Your task to perform on an android device: Play the new Drake video on YouTube Image 0: 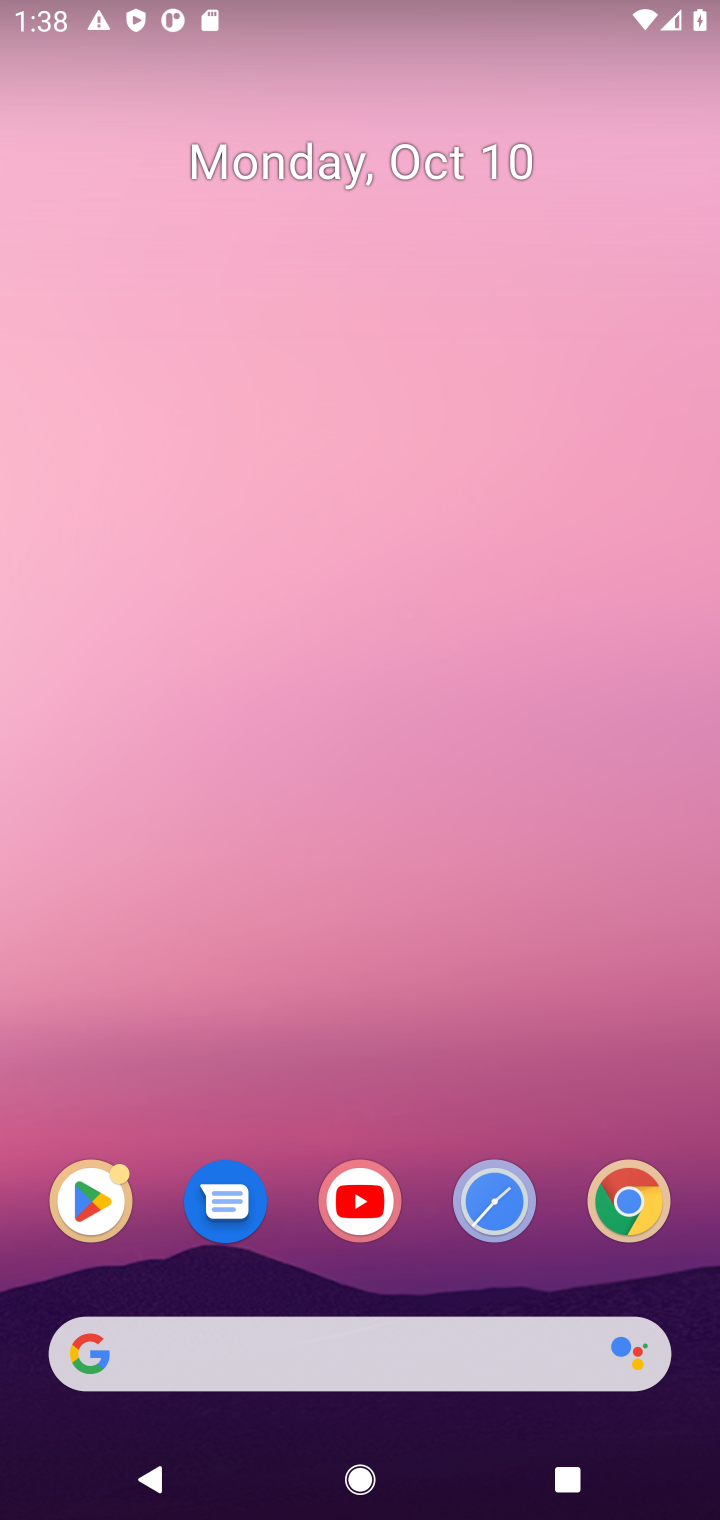
Step 0: click (372, 1188)
Your task to perform on an android device: Play the new Drake video on YouTube Image 1: 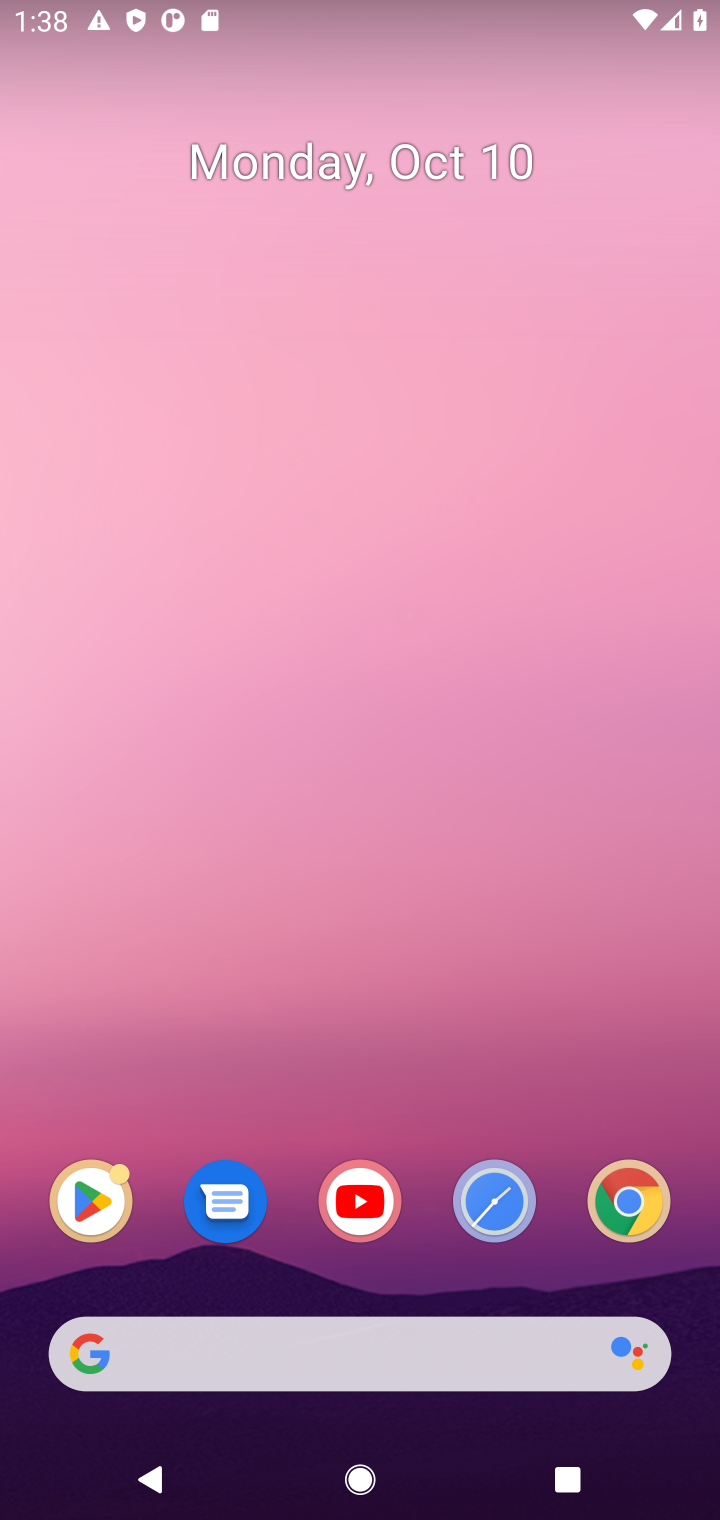
Step 1: click (372, 1204)
Your task to perform on an android device: Play the new Drake video on YouTube Image 2: 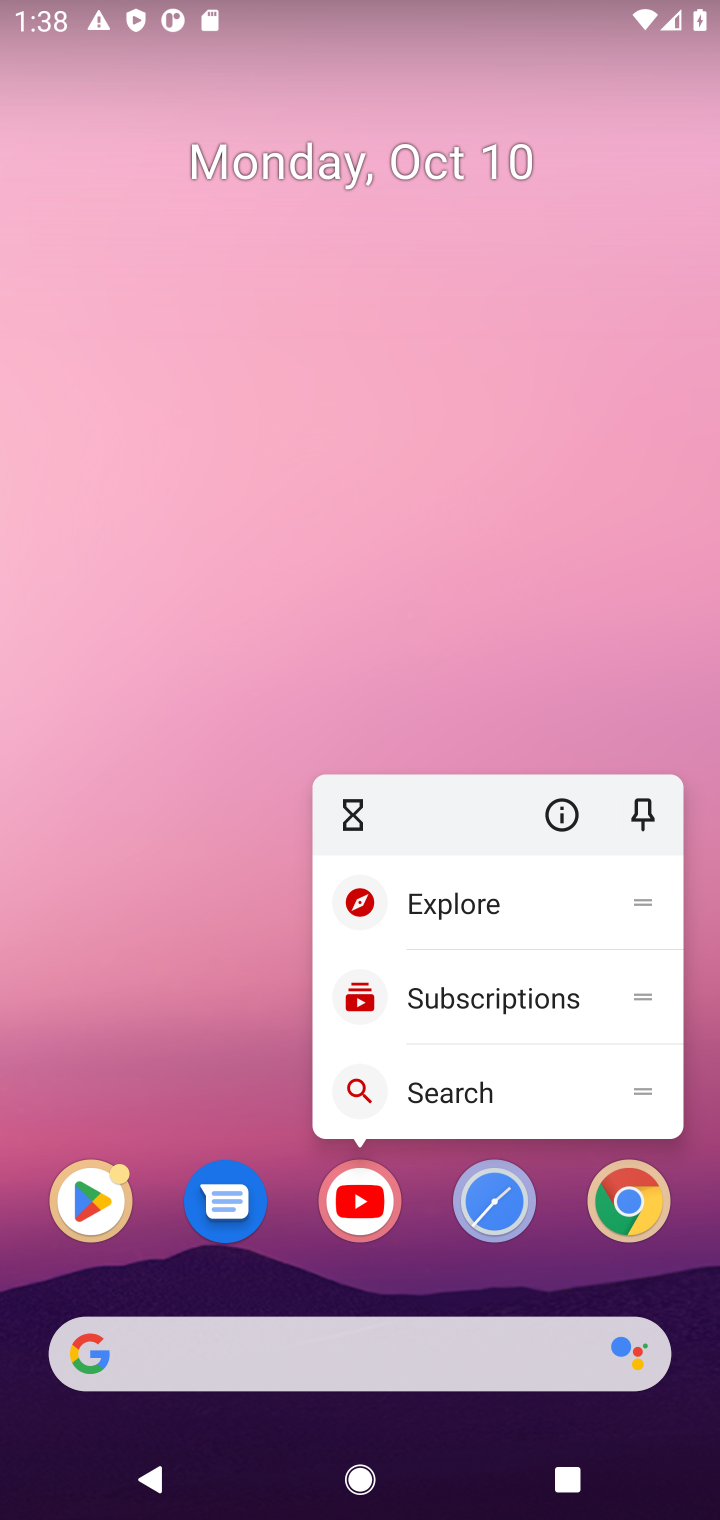
Step 2: click (184, 903)
Your task to perform on an android device: Play the new Drake video on YouTube Image 3: 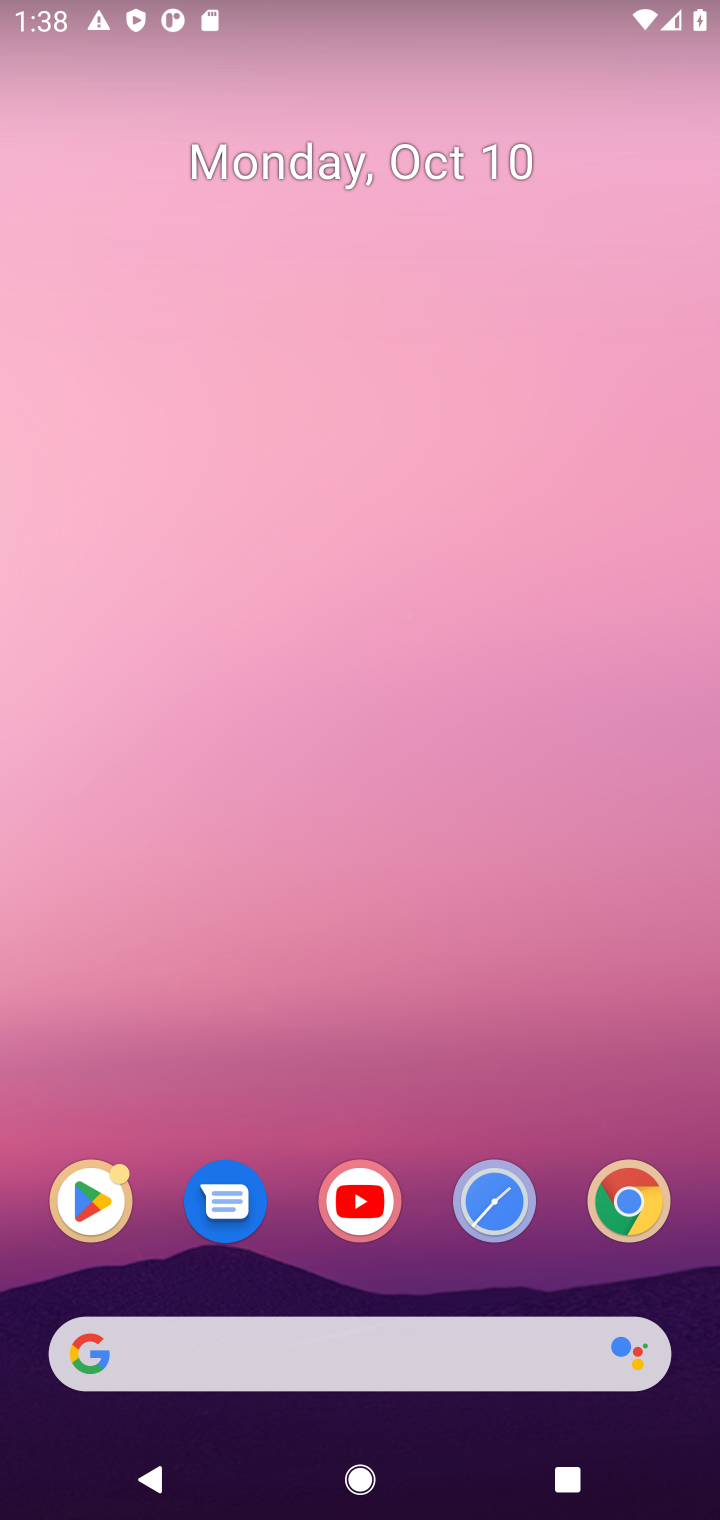
Step 3: drag from (434, 1475) to (364, 178)
Your task to perform on an android device: Play the new Drake video on YouTube Image 4: 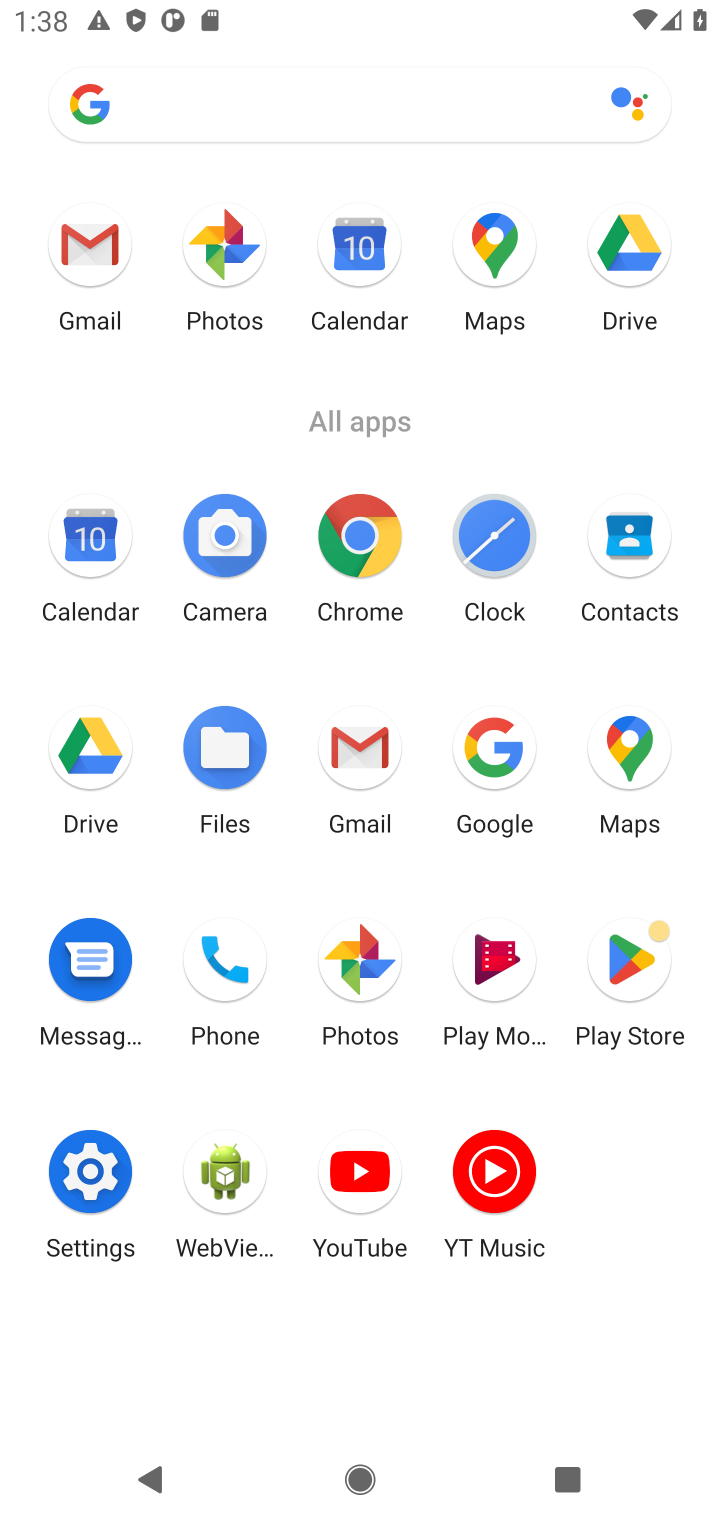
Step 4: click (355, 1190)
Your task to perform on an android device: Play the new Drake video on YouTube Image 5: 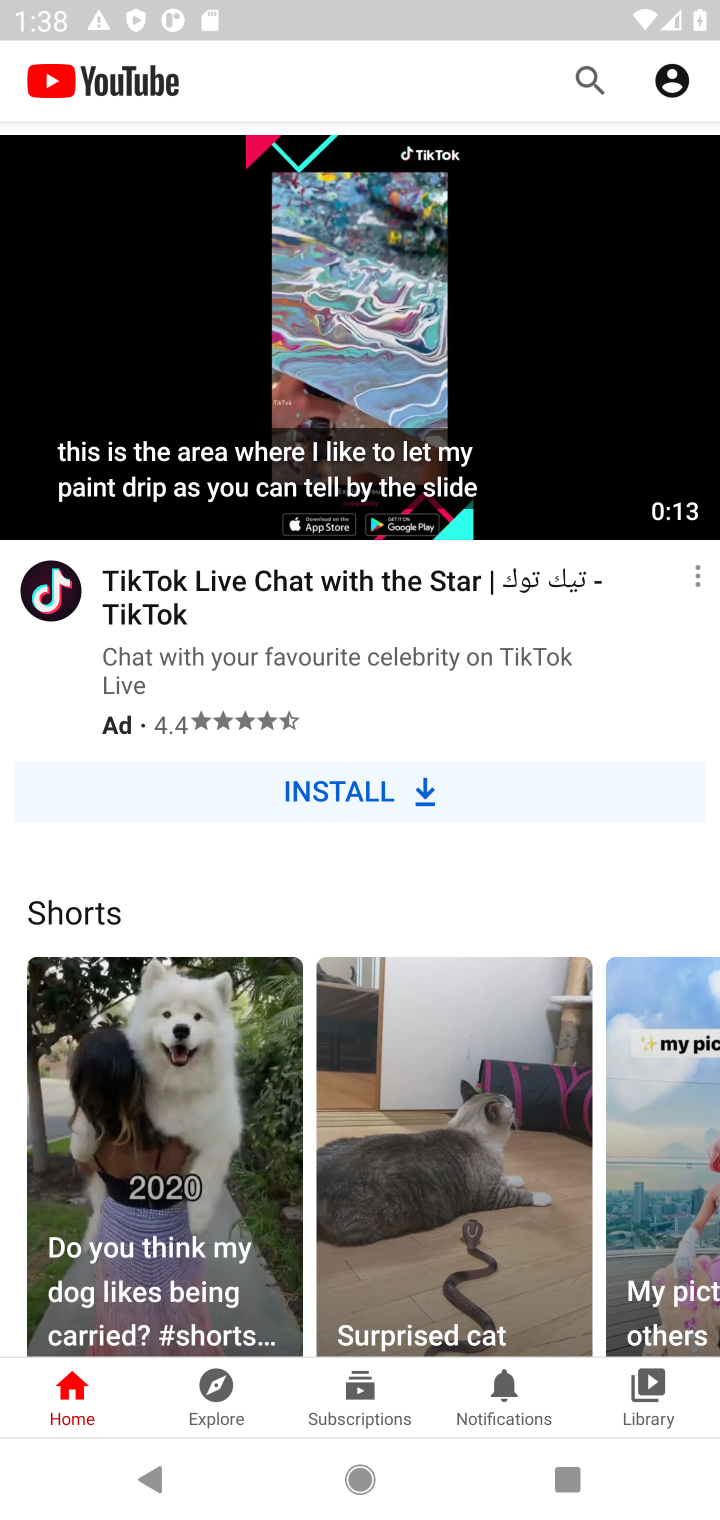
Step 5: click (569, 71)
Your task to perform on an android device: Play the new Drake video on YouTube Image 6: 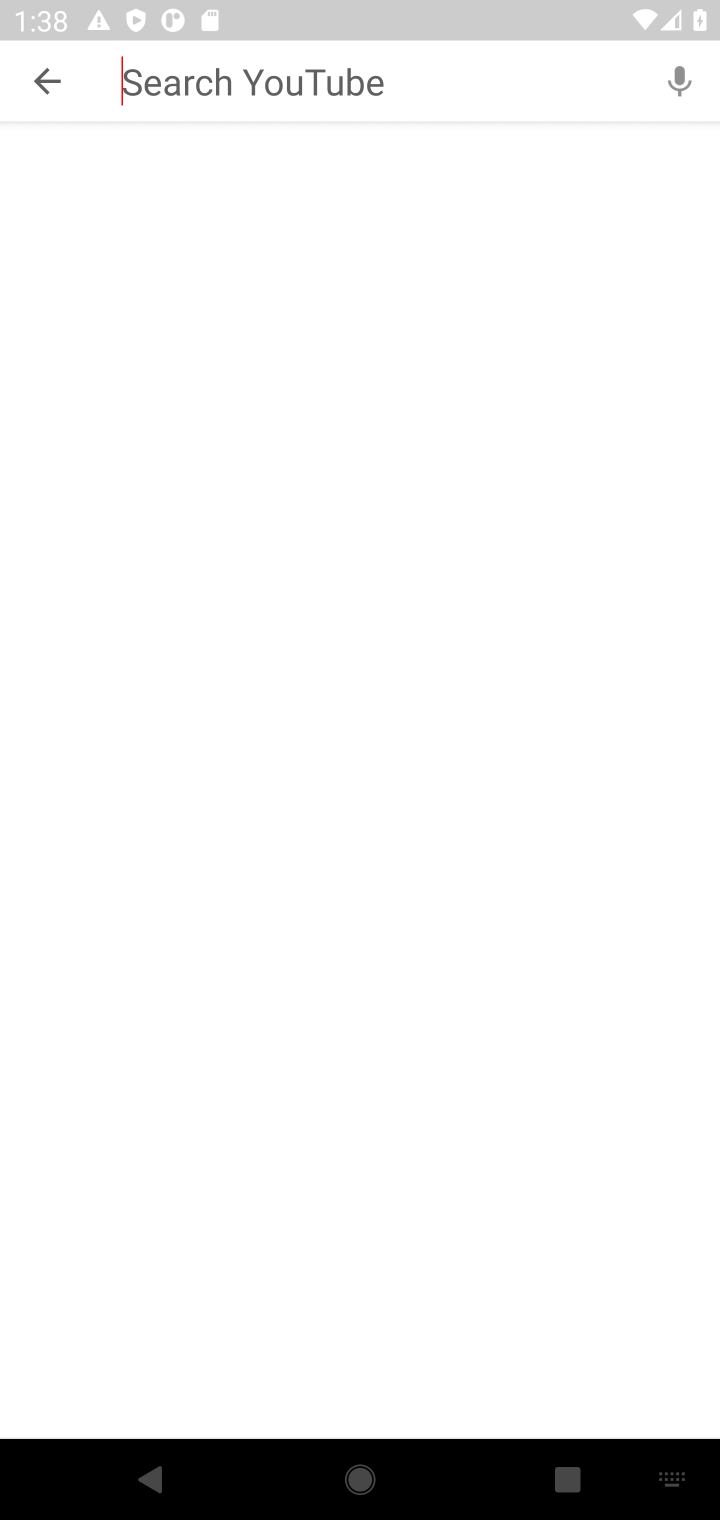
Step 6: type "new Drake video"
Your task to perform on an android device: Play the new Drake video on YouTube Image 7: 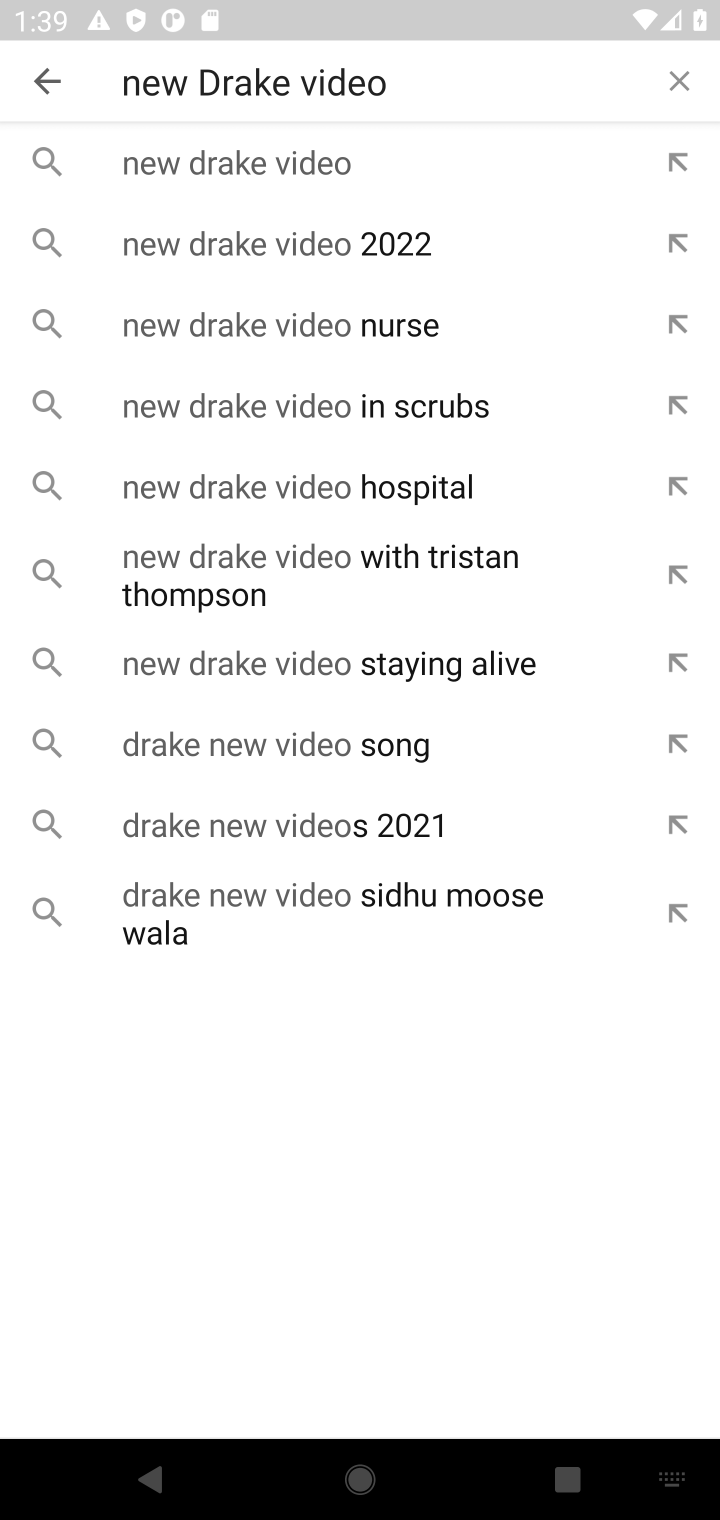
Step 7: click (178, 163)
Your task to perform on an android device: Play the new Drake video on YouTube Image 8: 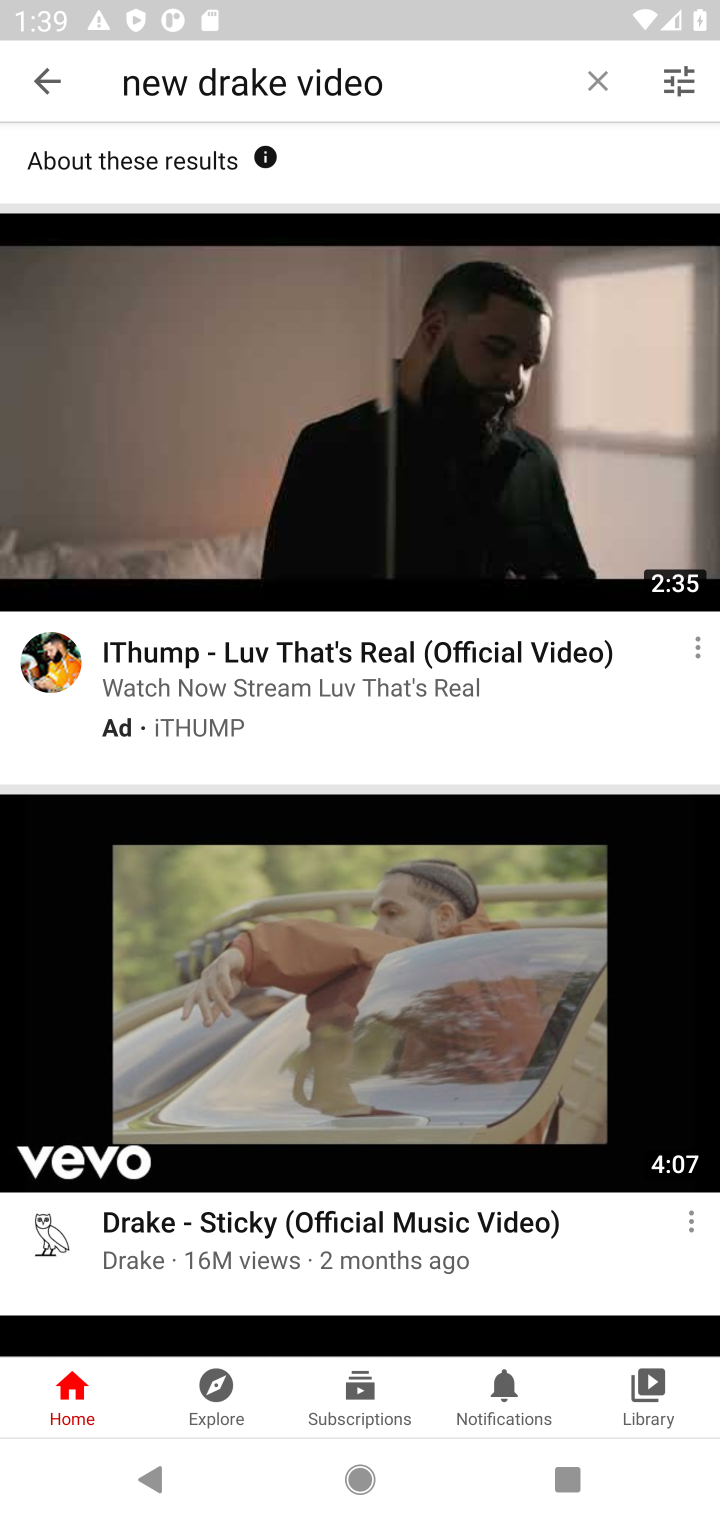
Step 8: click (366, 1209)
Your task to perform on an android device: Play the new Drake video on YouTube Image 9: 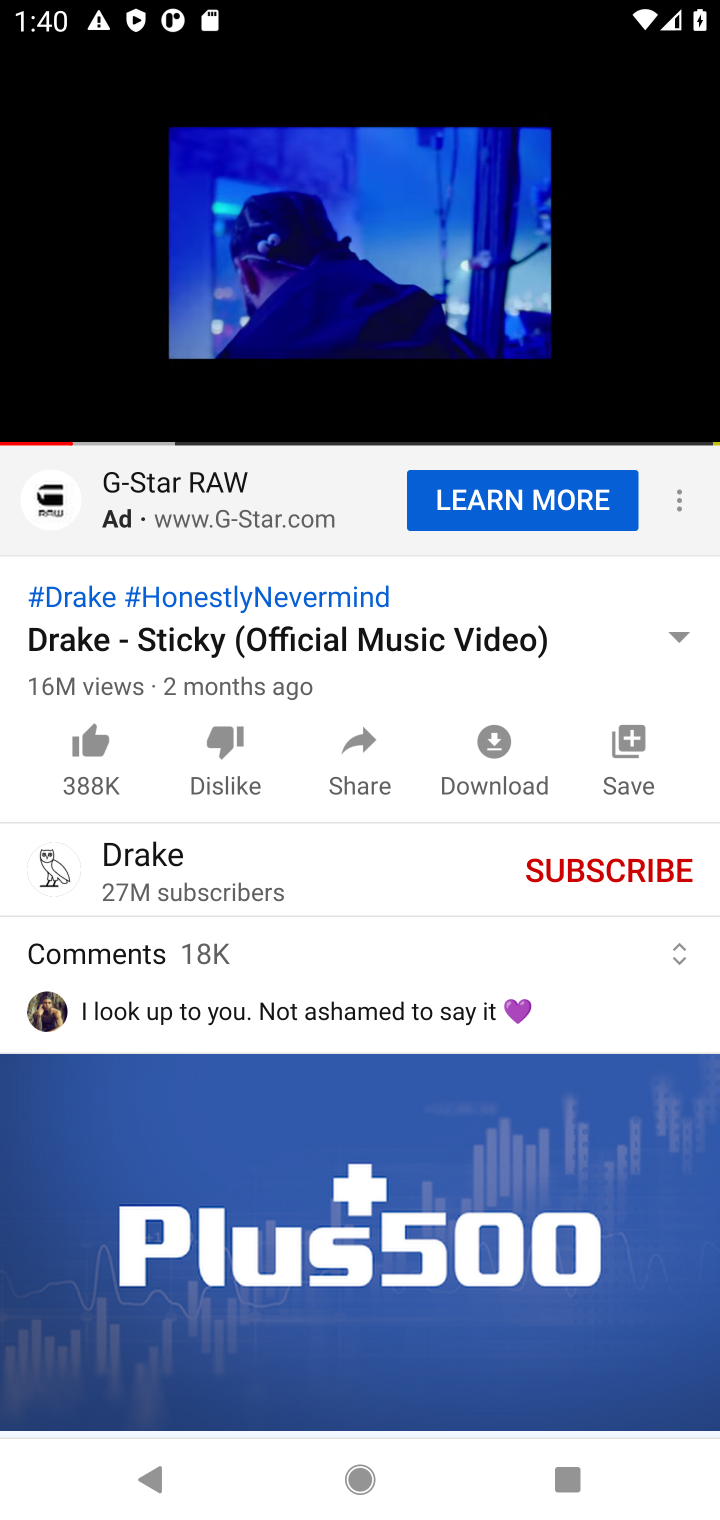
Step 9: drag from (568, 1004) to (494, 561)
Your task to perform on an android device: Play the new Drake video on YouTube Image 10: 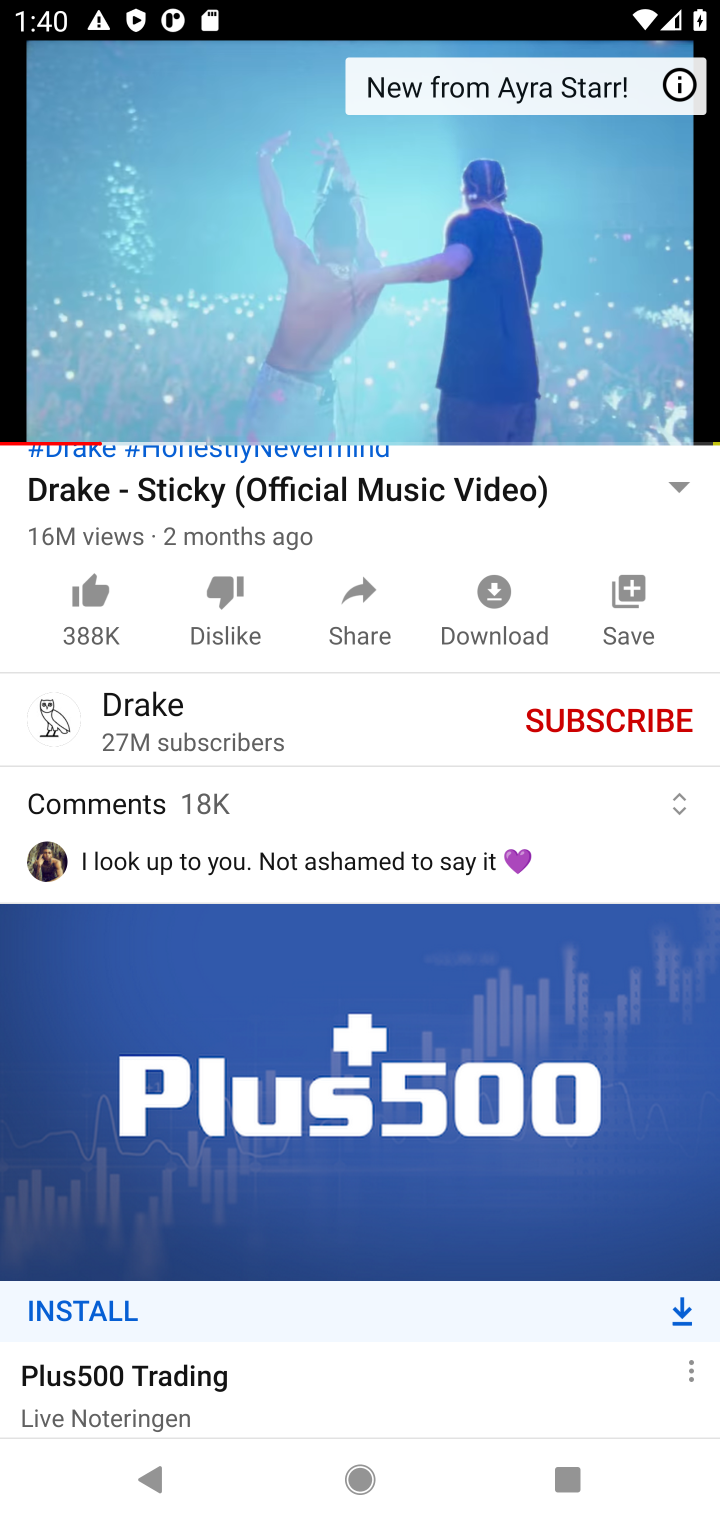
Step 10: click (454, 1309)
Your task to perform on an android device: Play the new Drake video on YouTube Image 11: 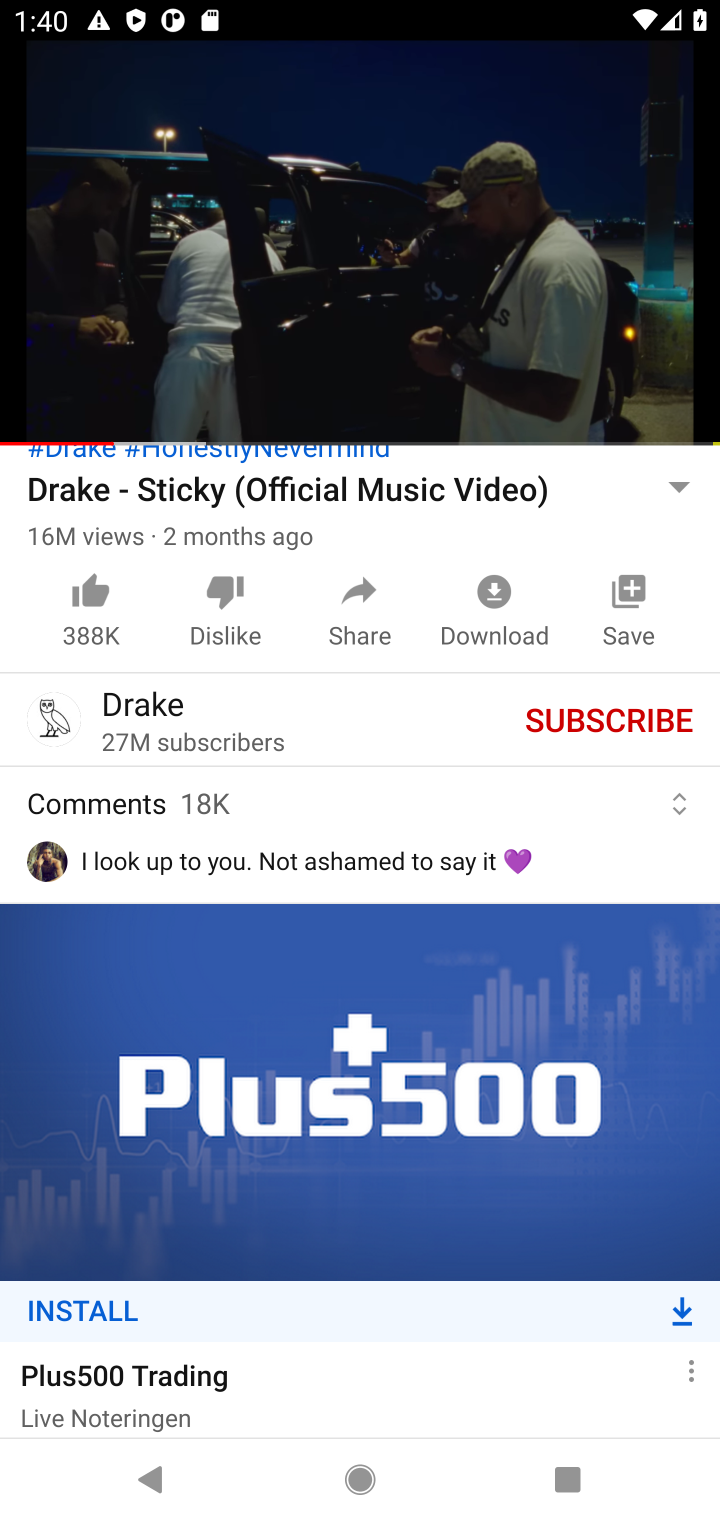
Step 11: task complete